Your task to perform on an android device: Open Wikipedia Image 0: 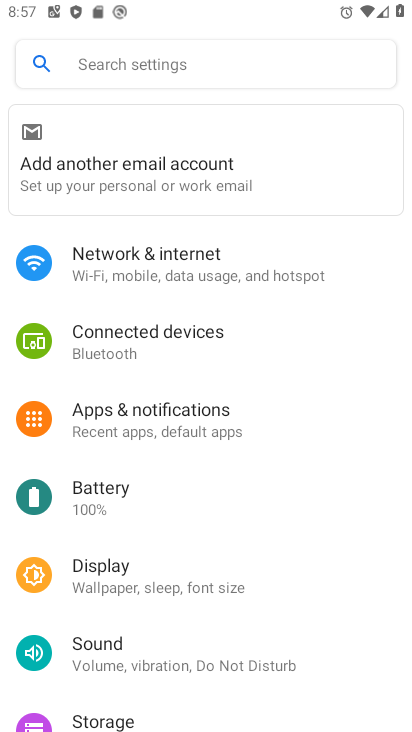
Step 0: press home button
Your task to perform on an android device: Open Wikipedia Image 1: 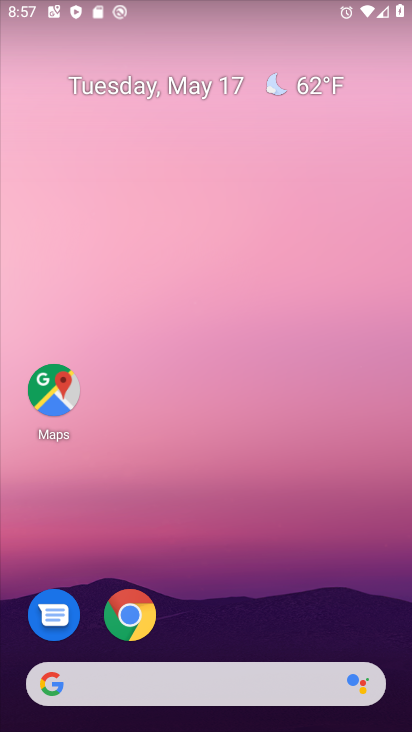
Step 1: click (128, 615)
Your task to perform on an android device: Open Wikipedia Image 2: 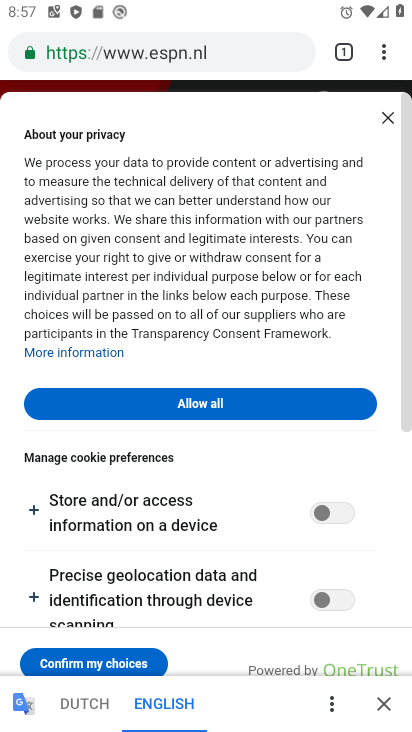
Step 2: click (346, 47)
Your task to perform on an android device: Open Wikipedia Image 3: 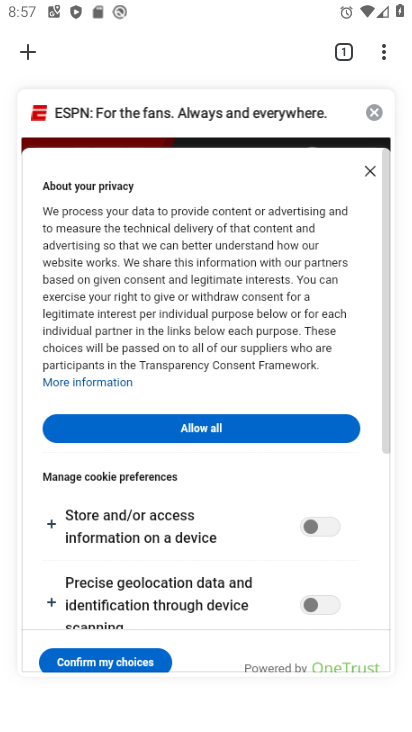
Step 3: click (377, 112)
Your task to perform on an android device: Open Wikipedia Image 4: 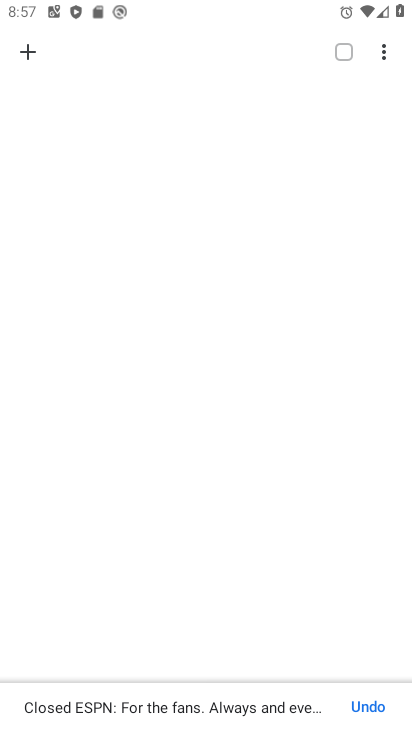
Step 4: click (32, 60)
Your task to perform on an android device: Open Wikipedia Image 5: 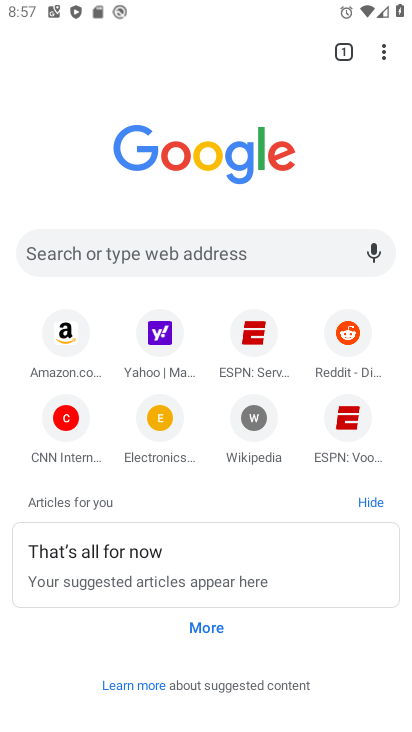
Step 5: click (245, 418)
Your task to perform on an android device: Open Wikipedia Image 6: 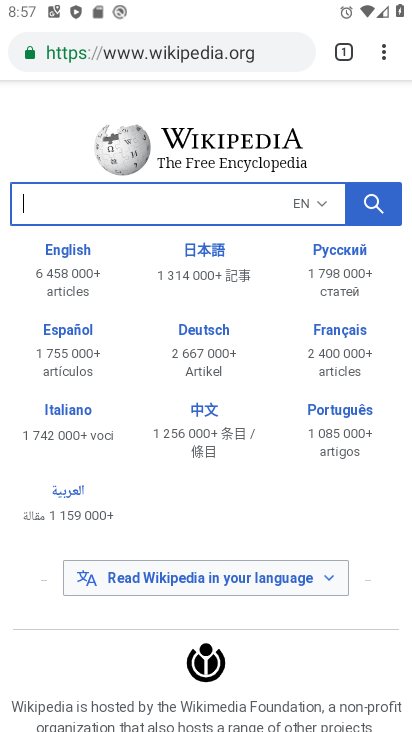
Step 6: task complete